Your task to perform on an android device: snooze an email in the gmail app Image 0: 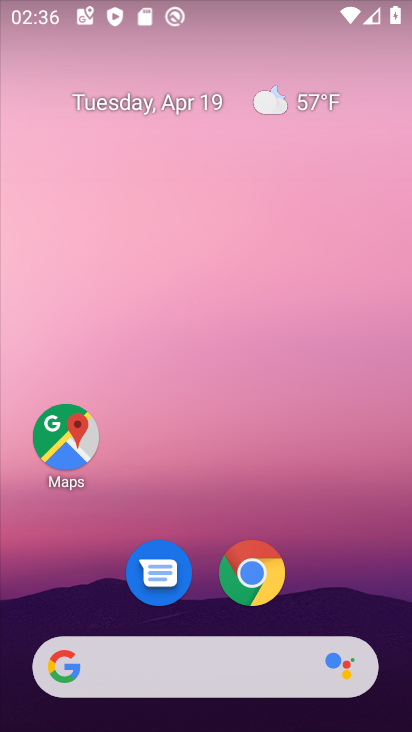
Step 0: drag from (374, 598) to (382, 443)
Your task to perform on an android device: snooze an email in the gmail app Image 1: 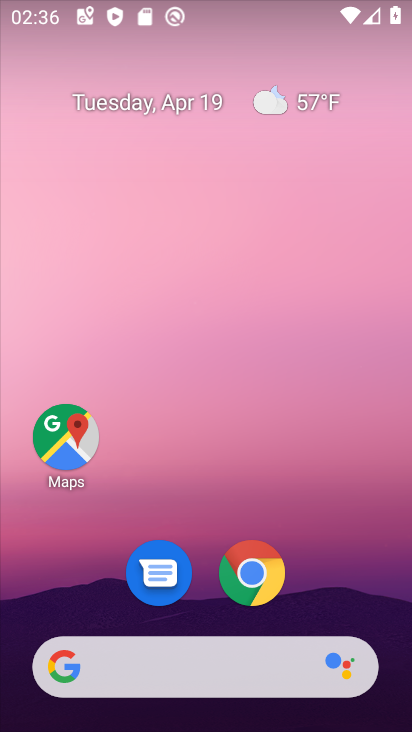
Step 1: drag from (384, 597) to (377, 6)
Your task to perform on an android device: snooze an email in the gmail app Image 2: 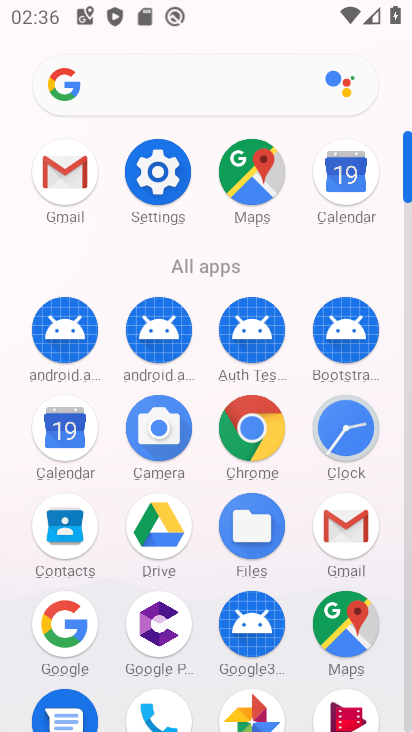
Step 2: click (65, 181)
Your task to perform on an android device: snooze an email in the gmail app Image 3: 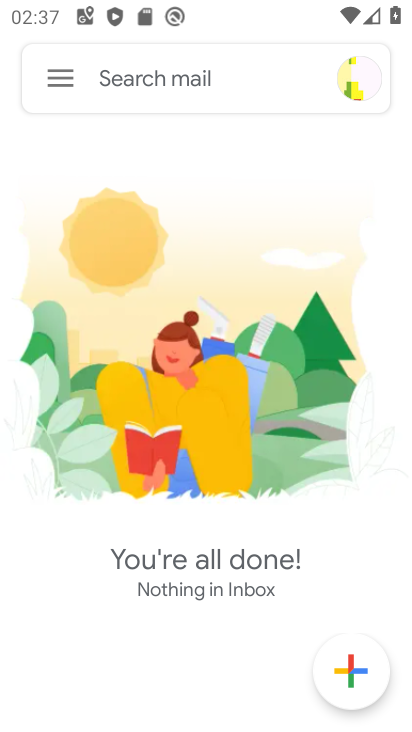
Step 3: click (60, 79)
Your task to perform on an android device: snooze an email in the gmail app Image 4: 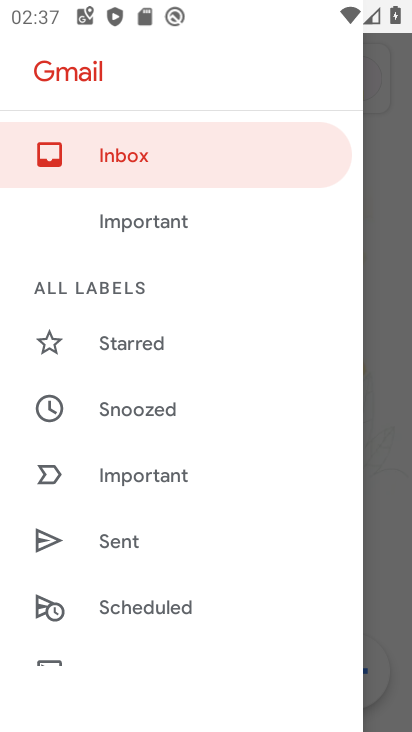
Step 4: drag from (217, 489) to (219, 279)
Your task to perform on an android device: snooze an email in the gmail app Image 5: 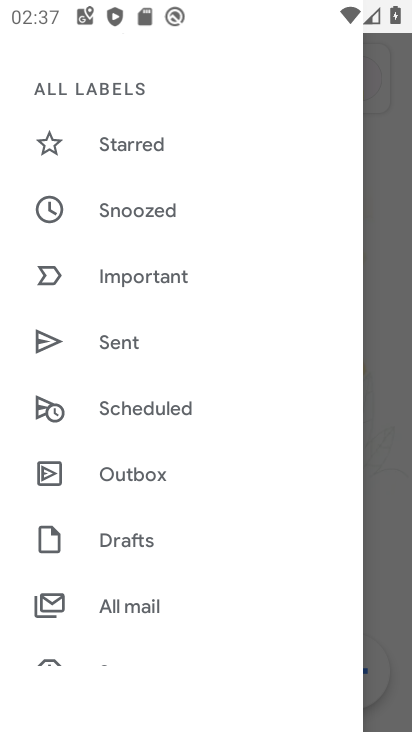
Step 5: click (101, 610)
Your task to perform on an android device: snooze an email in the gmail app Image 6: 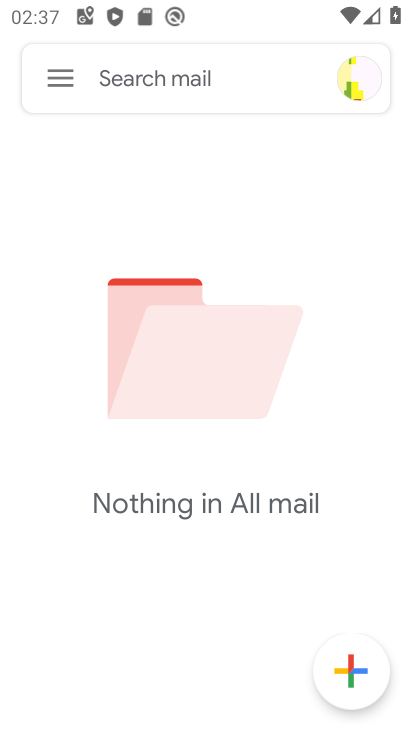
Step 6: task complete